Your task to perform on an android device: delete location history Image 0: 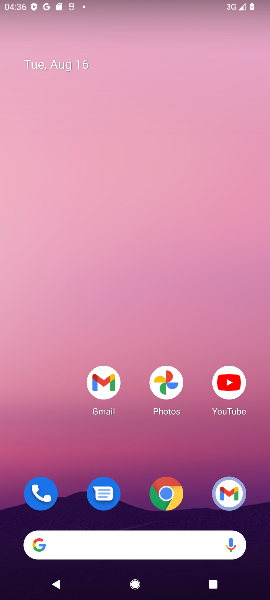
Step 0: press home button
Your task to perform on an android device: delete location history Image 1: 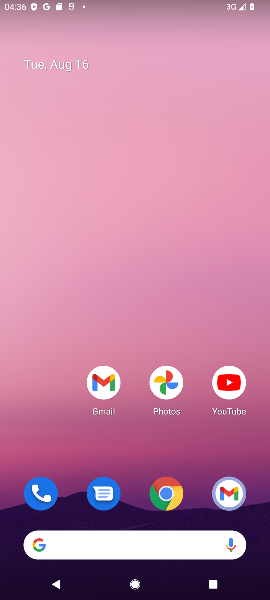
Step 1: click (261, 424)
Your task to perform on an android device: delete location history Image 2: 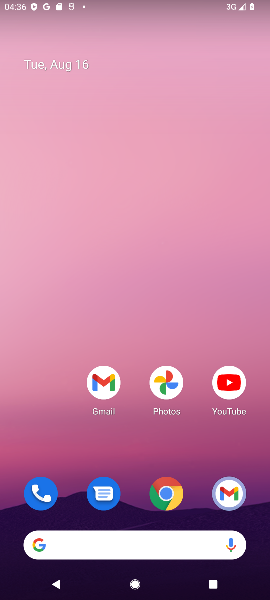
Step 2: drag from (65, 486) to (101, 153)
Your task to perform on an android device: delete location history Image 3: 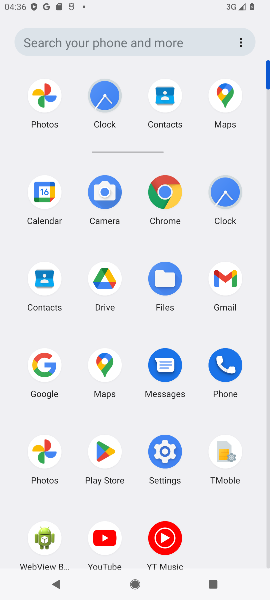
Step 3: click (106, 361)
Your task to perform on an android device: delete location history Image 4: 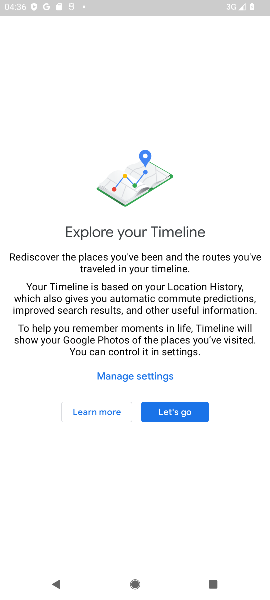
Step 4: click (185, 413)
Your task to perform on an android device: delete location history Image 5: 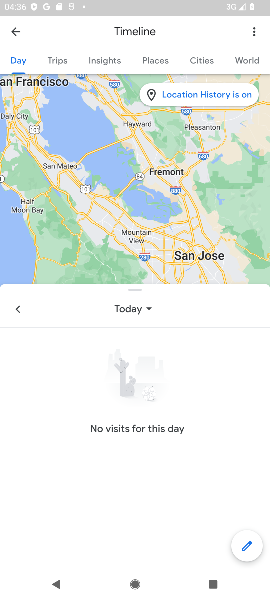
Step 5: click (254, 30)
Your task to perform on an android device: delete location history Image 6: 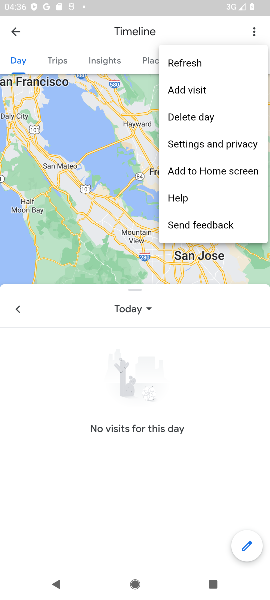
Step 6: click (227, 145)
Your task to perform on an android device: delete location history Image 7: 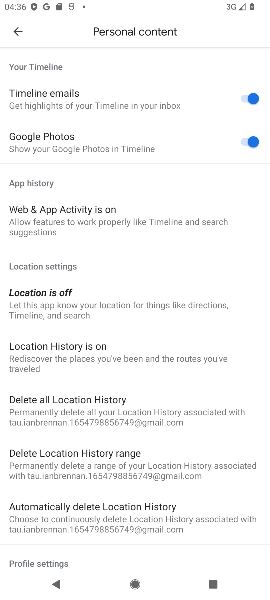
Step 7: drag from (213, 355) to (216, 278)
Your task to perform on an android device: delete location history Image 8: 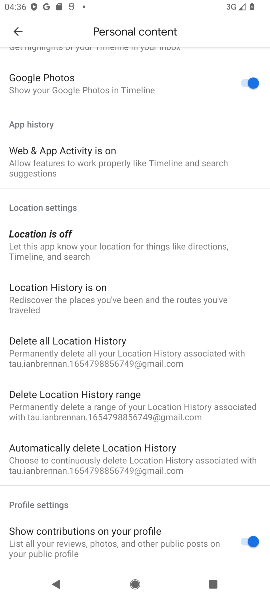
Step 8: click (192, 348)
Your task to perform on an android device: delete location history Image 9: 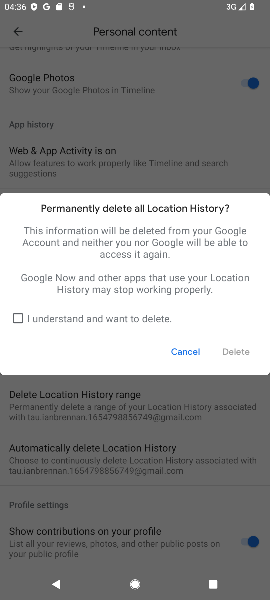
Step 9: click (20, 322)
Your task to perform on an android device: delete location history Image 10: 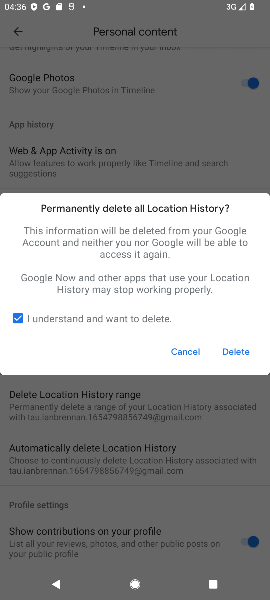
Step 10: click (237, 355)
Your task to perform on an android device: delete location history Image 11: 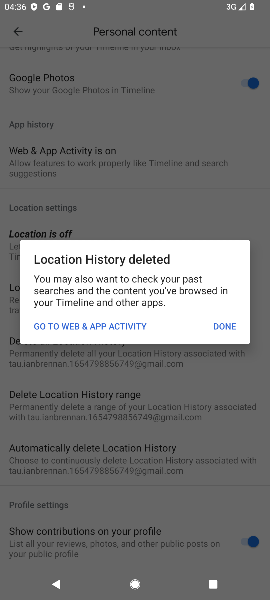
Step 11: click (221, 323)
Your task to perform on an android device: delete location history Image 12: 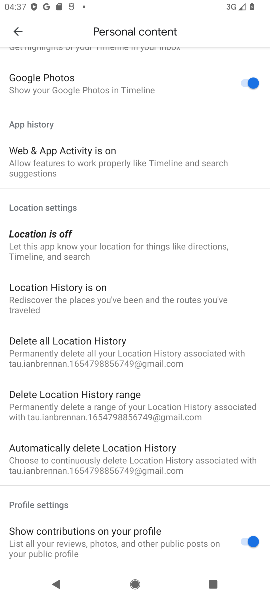
Step 12: task complete